Your task to perform on an android device: turn on the 12-hour format for clock Image 0: 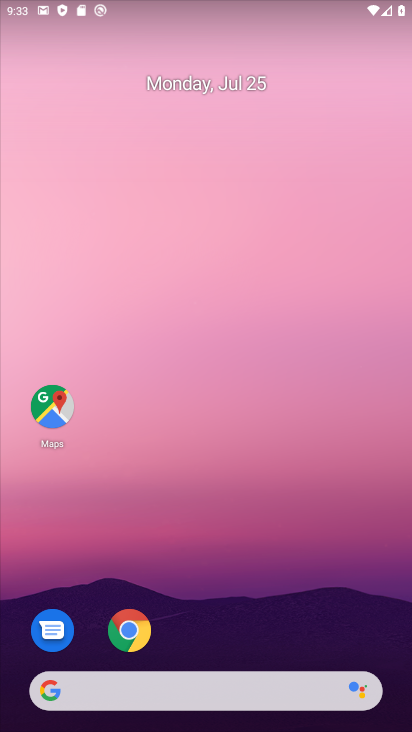
Step 0: press home button
Your task to perform on an android device: turn on the 12-hour format for clock Image 1: 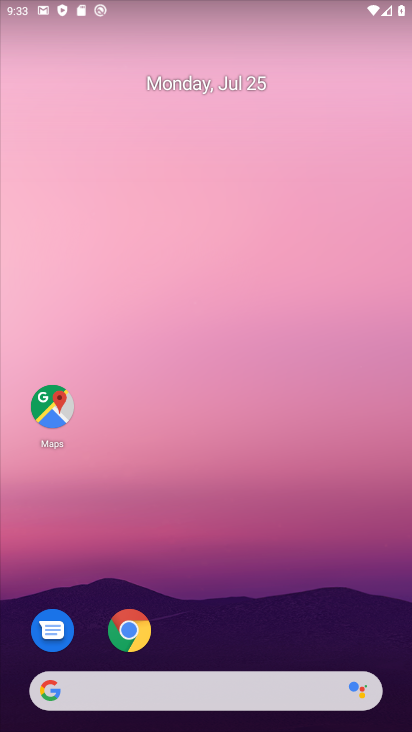
Step 1: drag from (367, 439) to (397, 66)
Your task to perform on an android device: turn on the 12-hour format for clock Image 2: 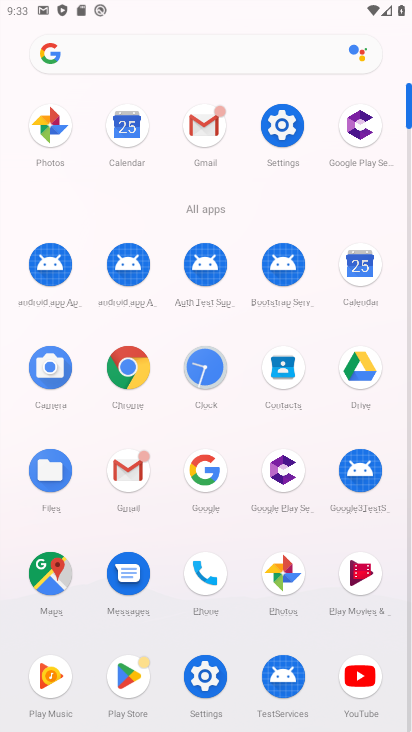
Step 2: click (275, 135)
Your task to perform on an android device: turn on the 12-hour format for clock Image 3: 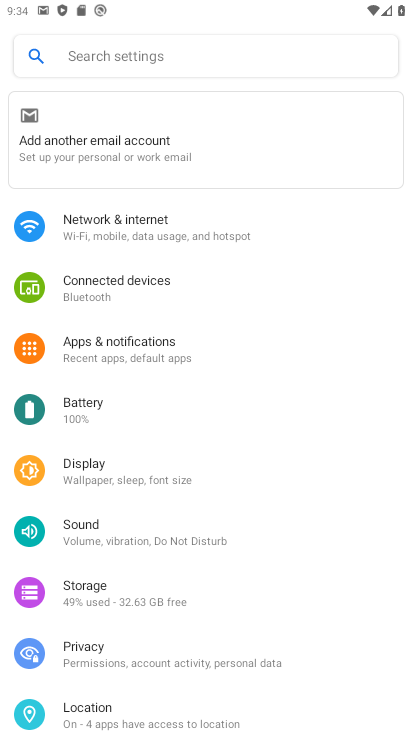
Step 3: drag from (134, 567) to (136, 256)
Your task to perform on an android device: turn on the 12-hour format for clock Image 4: 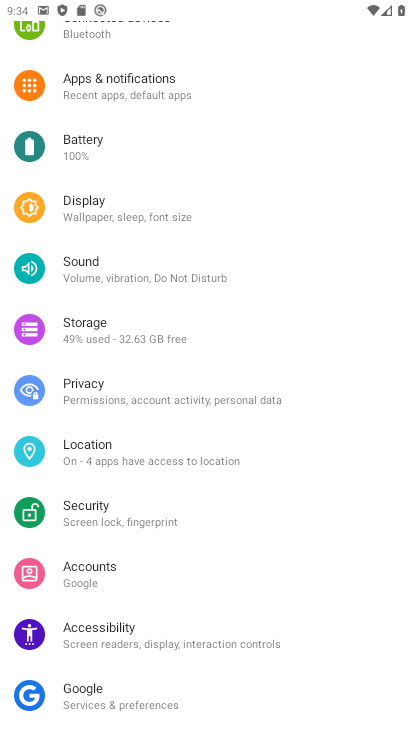
Step 4: drag from (161, 588) to (149, 218)
Your task to perform on an android device: turn on the 12-hour format for clock Image 5: 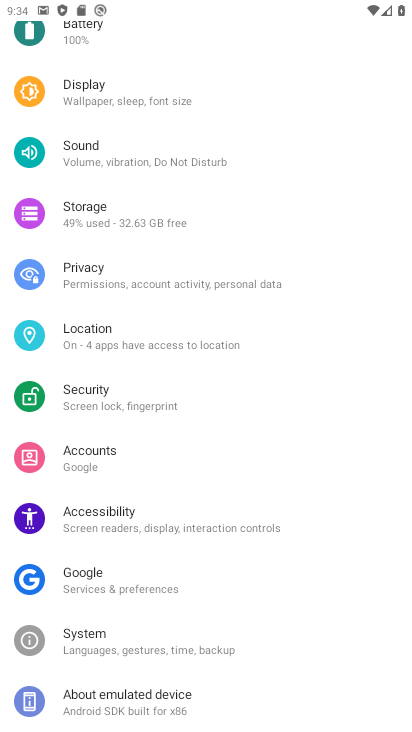
Step 5: click (145, 645)
Your task to perform on an android device: turn on the 12-hour format for clock Image 6: 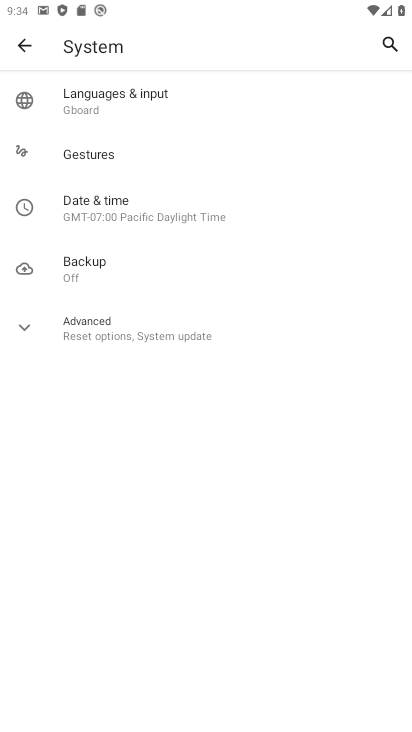
Step 6: click (205, 223)
Your task to perform on an android device: turn on the 12-hour format for clock Image 7: 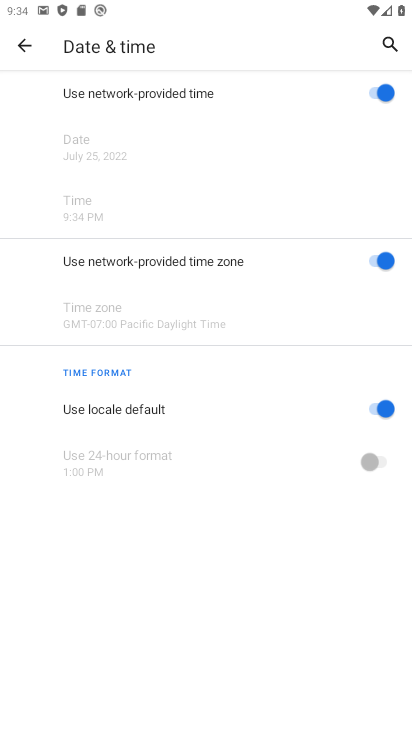
Step 7: task complete